Your task to perform on an android device: make emails show in primary in the gmail app Image 0: 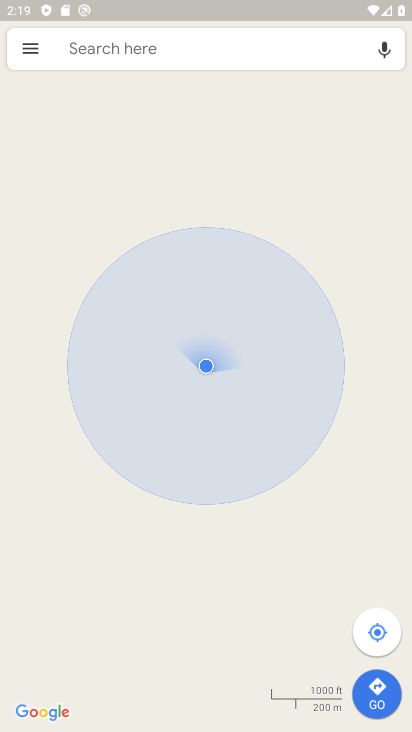
Step 0: press home button
Your task to perform on an android device: make emails show in primary in the gmail app Image 1: 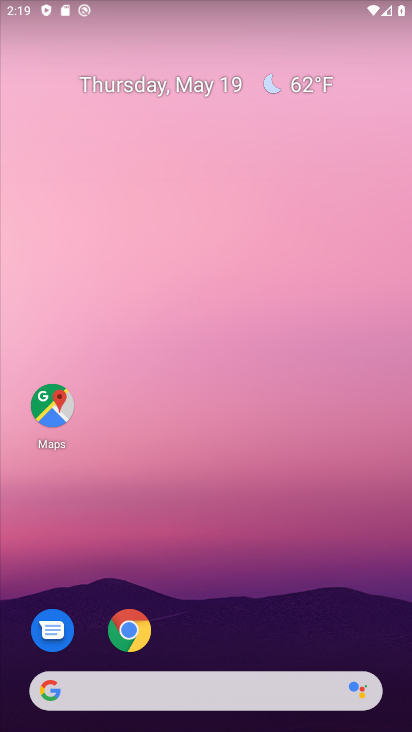
Step 1: drag from (349, 625) to (331, 178)
Your task to perform on an android device: make emails show in primary in the gmail app Image 2: 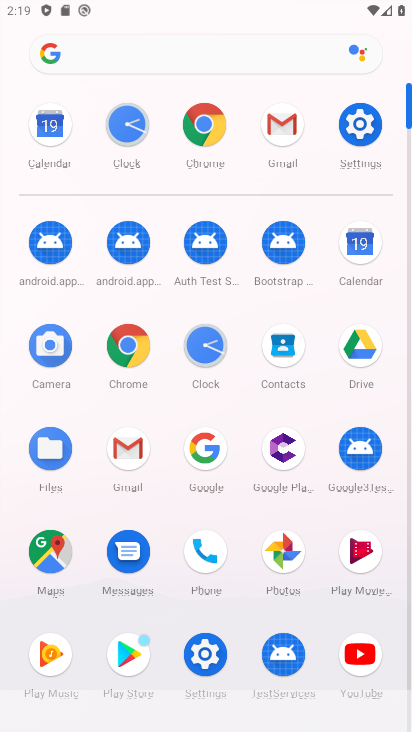
Step 2: click (139, 440)
Your task to perform on an android device: make emails show in primary in the gmail app Image 3: 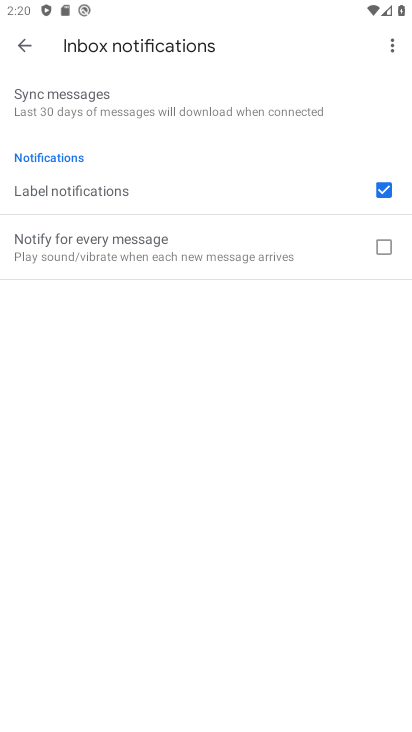
Step 3: click (34, 52)
Your task to perform on an android device: make emails show in primary in the gmail app Image 4: 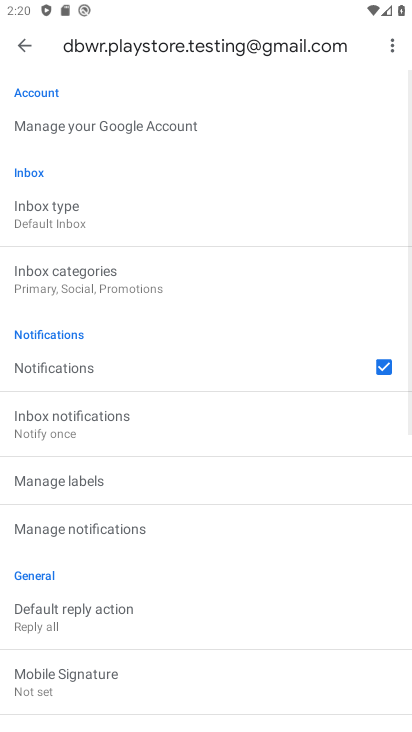
Step 4: drag from (158, 668) to (174, 234)
Your task to perform on an android device: make emails show in primary in the gmail app Image 5: 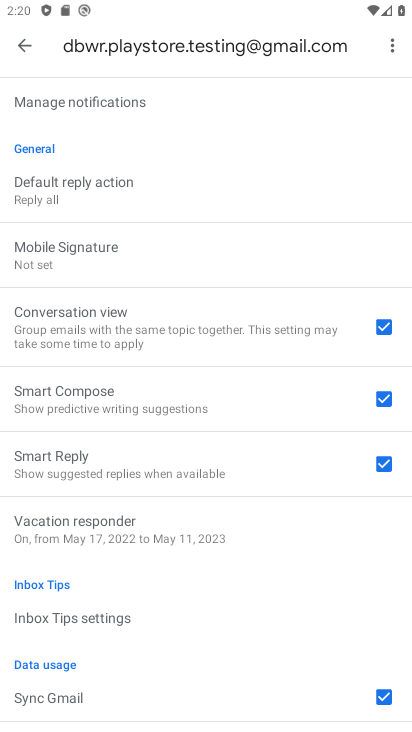
Step 5: drag from (181, 215) to (189, 682)
Your task to perform on an android device: make emails show in primary in the gmail app Image 6: 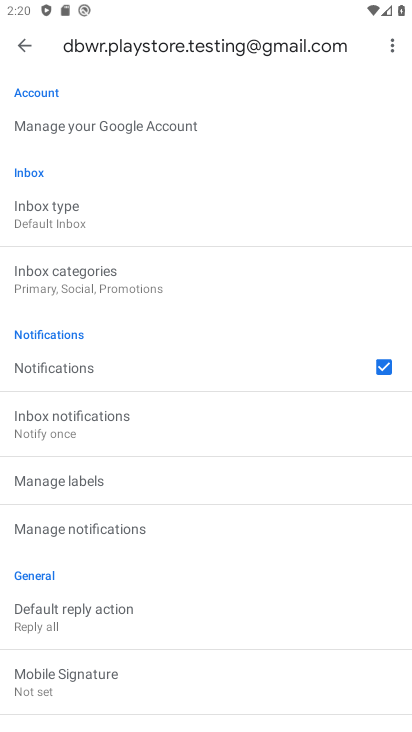
Step 6: drag from (194, 313) to (204, 681)
Your task to perform on an android device: make emails show in primary in the gmail app Image 7: 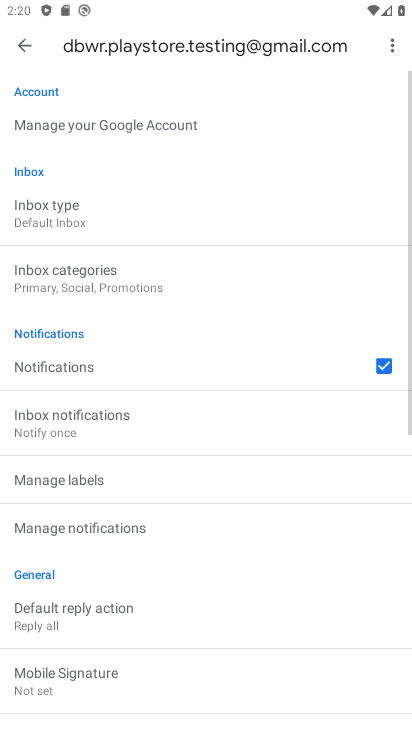
Step 7: click (51, 200)
Your task to perform on an android device: make emails show in primary in the gmail app Image 8: 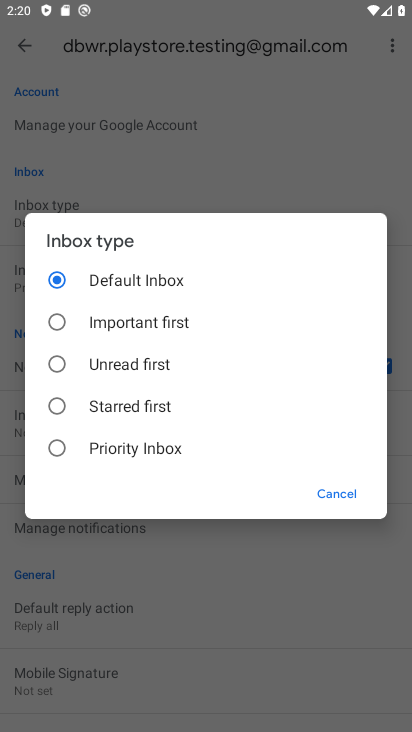
Step 8: task complete